Your task to perform on an android device: Go to Android settings Image 0: 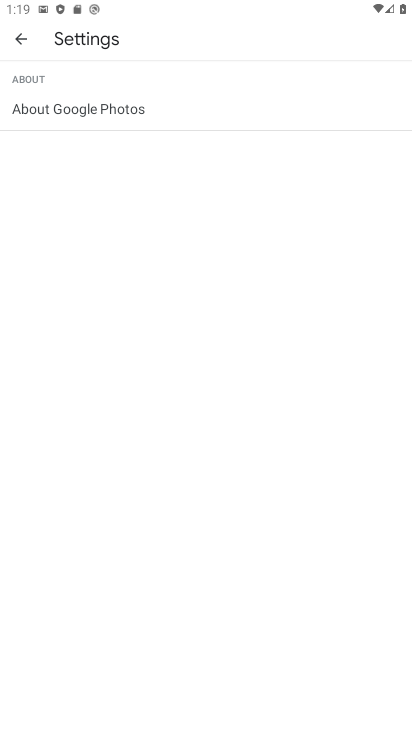
Step 0: press home button
Your task to perform on an android device: Go to Android settings Image 1: 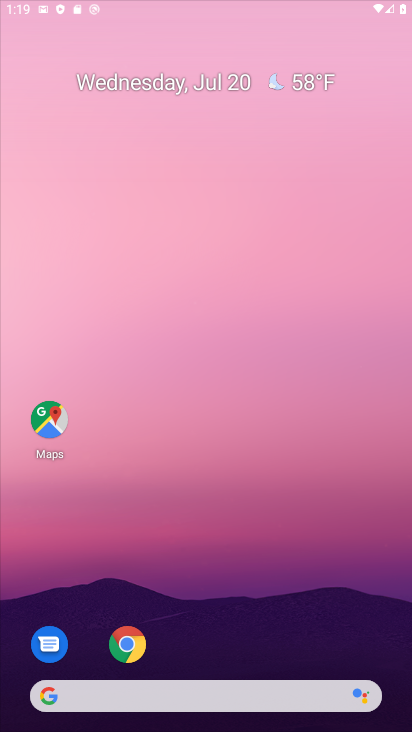
Step 1: drag from (215, 652) to (255, 105)
Your task to perform on an android device: Go to Android settings Image 2: 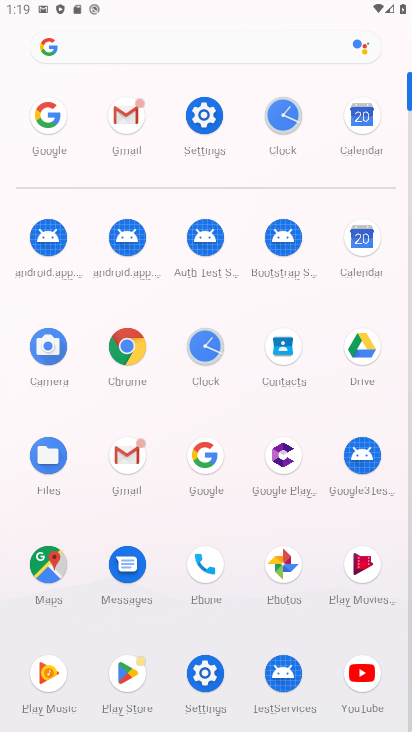
Step 2: click (194, 118)
Your task to perform on an android device: Go to Android settings Image 3: 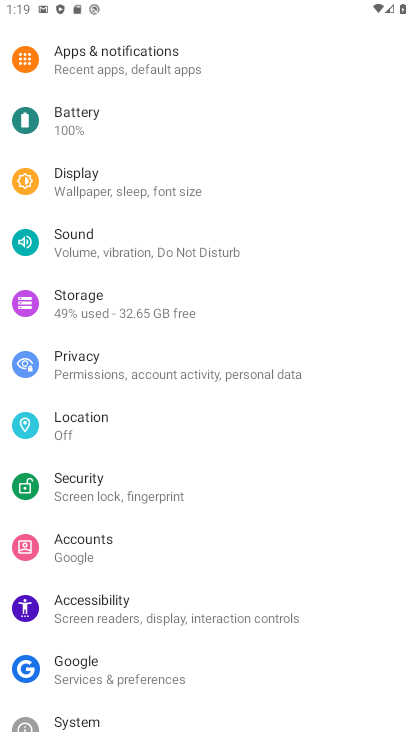
Step 3: task complete